Your task to perform on an android device: manage bookmarks in the chrome app Image 0: 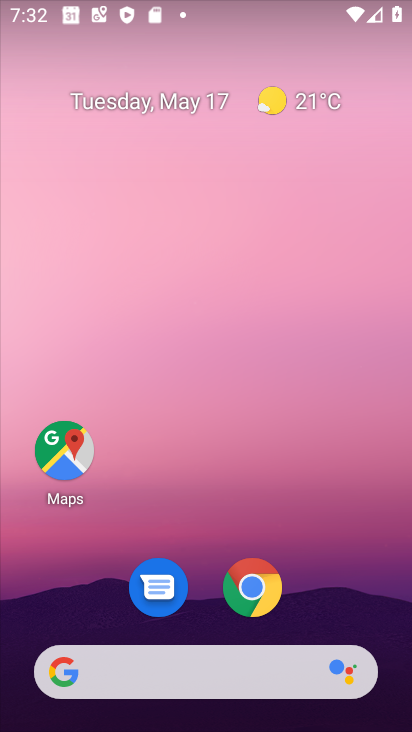
Step 0: drag from (377, 621) to (360, 416)
Your task to perform on an android device: manage bookmarks in the chrome app Image 1: 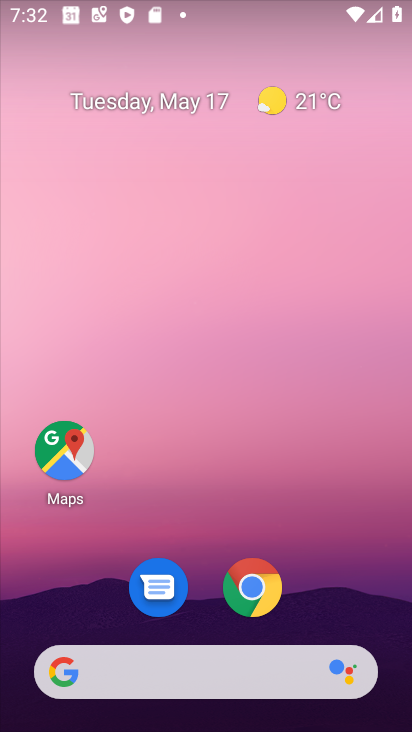
Step 1: drag from (244, 350) to (350, 136)
Your task to perform on an android device: manage bookmarks in the chrome app Image 2: 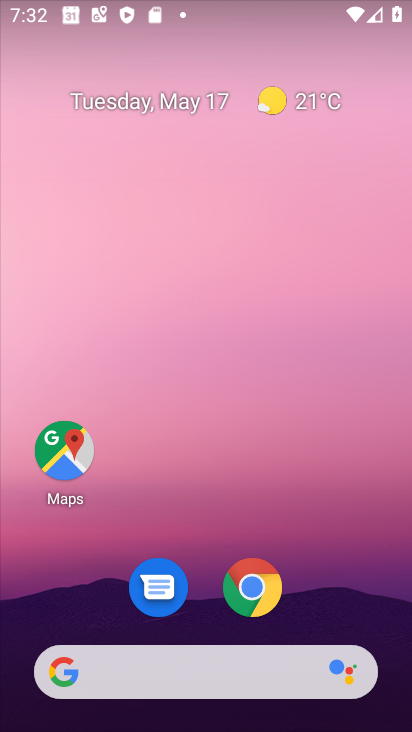
Step 2: drag from (356, 567) to (340, 36)
Your task to perform on an android device: manage bookmarks in the chrome app Image 3: 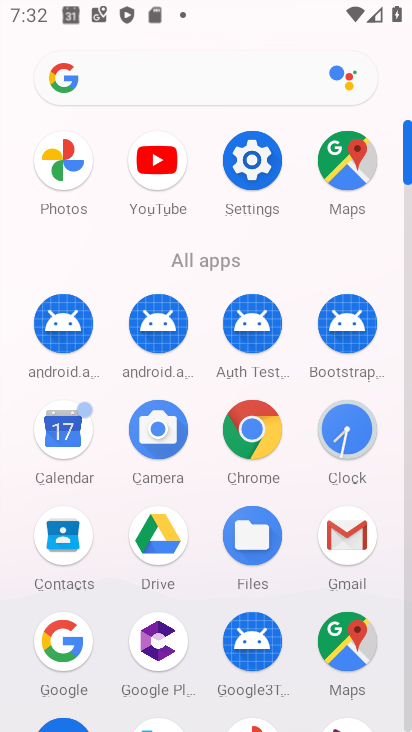
Step 3: click (261, 432)
Your task to perform on an android device: manage bookmarks in the chrome app Image 4: 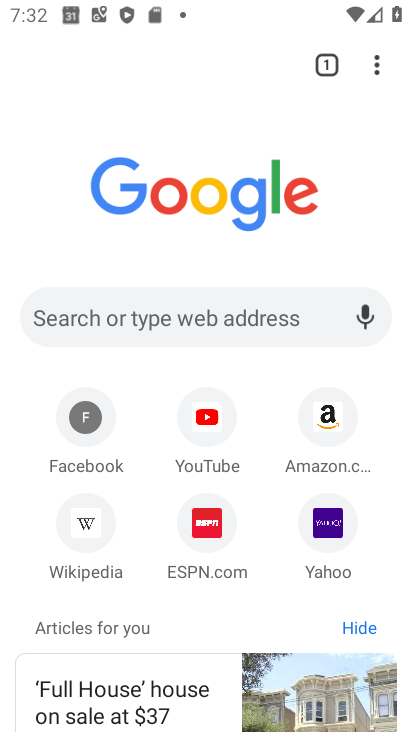
Step 4: click (375, 69)
Your task to perform on an android device: manage bookmarks in the chrome app Image 5: 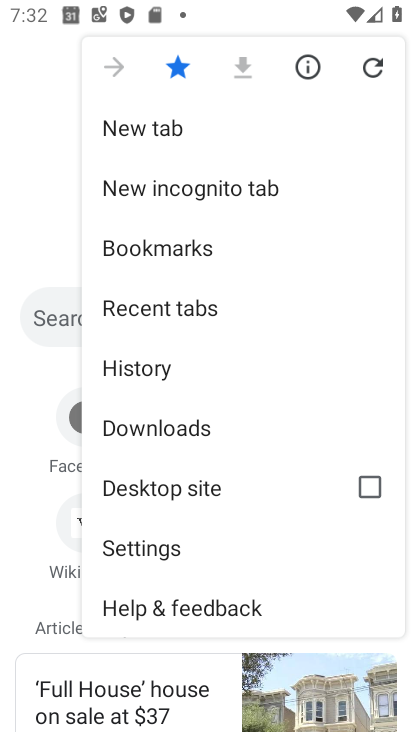
Step 5: click (181, 264)
Your task to perform on an android device: manage bookmarks in the chrome app Image 6: 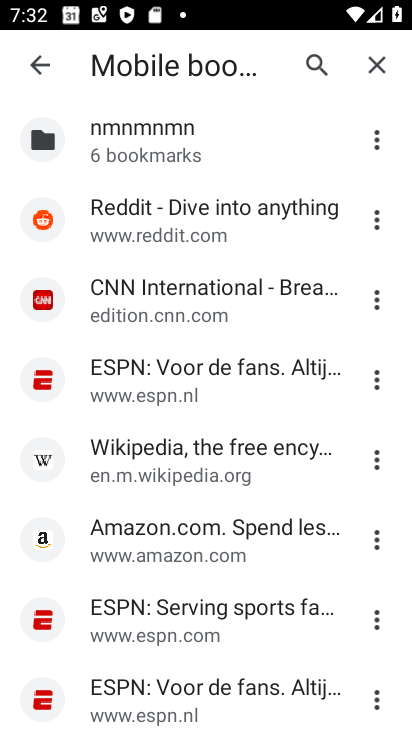
Step 6: click (375, 142)
Your task to perform on an android device: manage bookmarks in the chrome app Image 7: 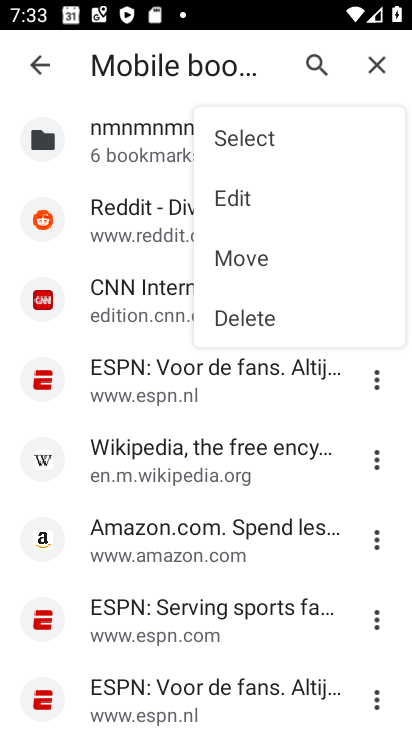
Step 7: click (241, 190)
Your task to perform on an android device: manage bookmarks in the chrome app Image 8: 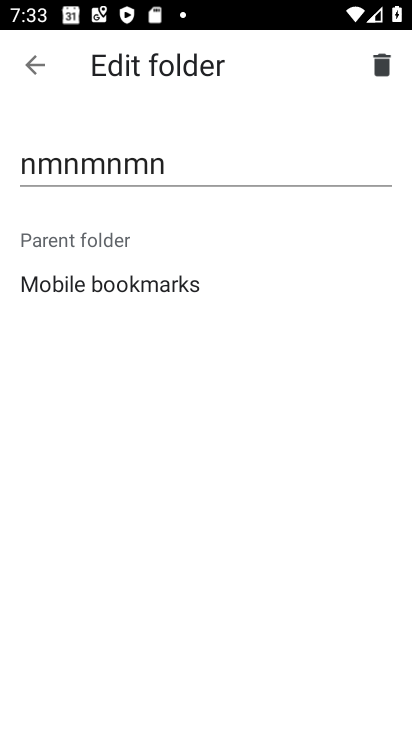
Step 8: click (210, 166)
Your task to perform on an android device: manage bookmarks in the chrome app Image 9: 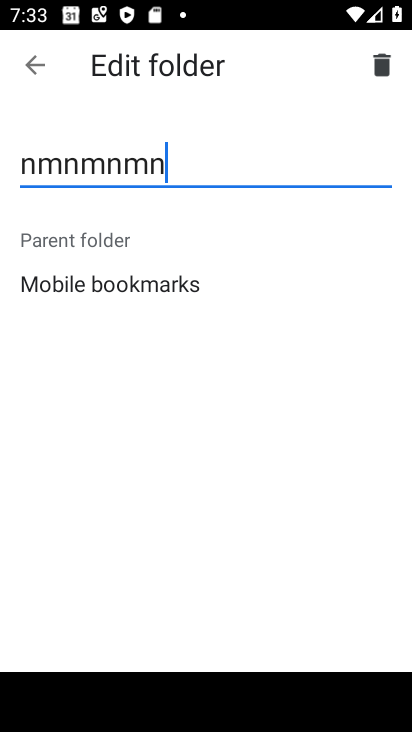
Step 9: type "nnnnn"
Your task to perform on an android device: manage bookmarks in the chrome app Image 10: 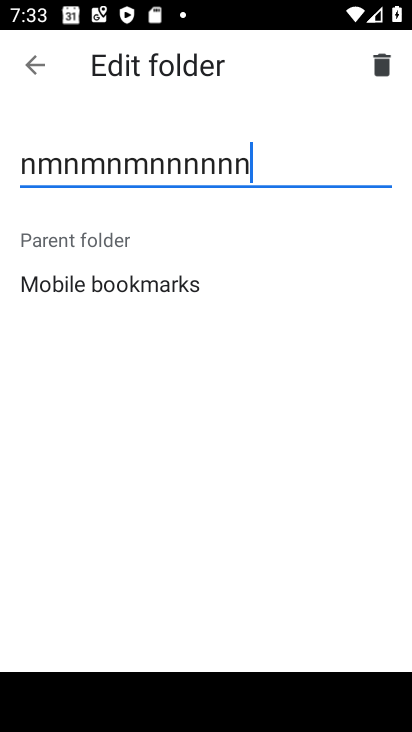
Step 10: click (31, 68)
Your task to perform on an android device: manage bookmarks in the chrome app Image 11: 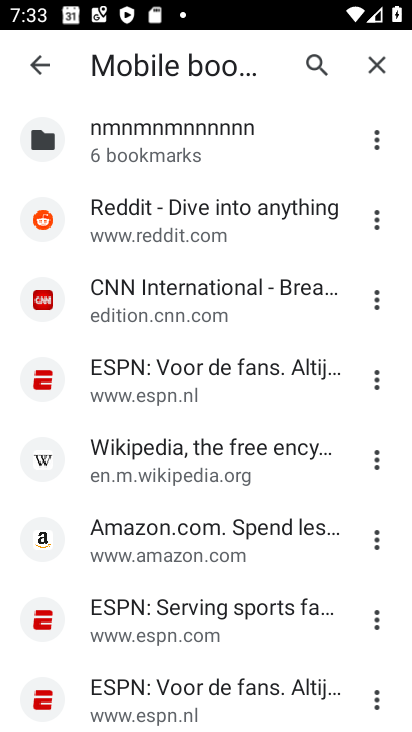
Step 11: task complete